Your task to perform on an android device: Clear the cart on bestbuy. Add usb-c to the cart on bestbuy Image 0: 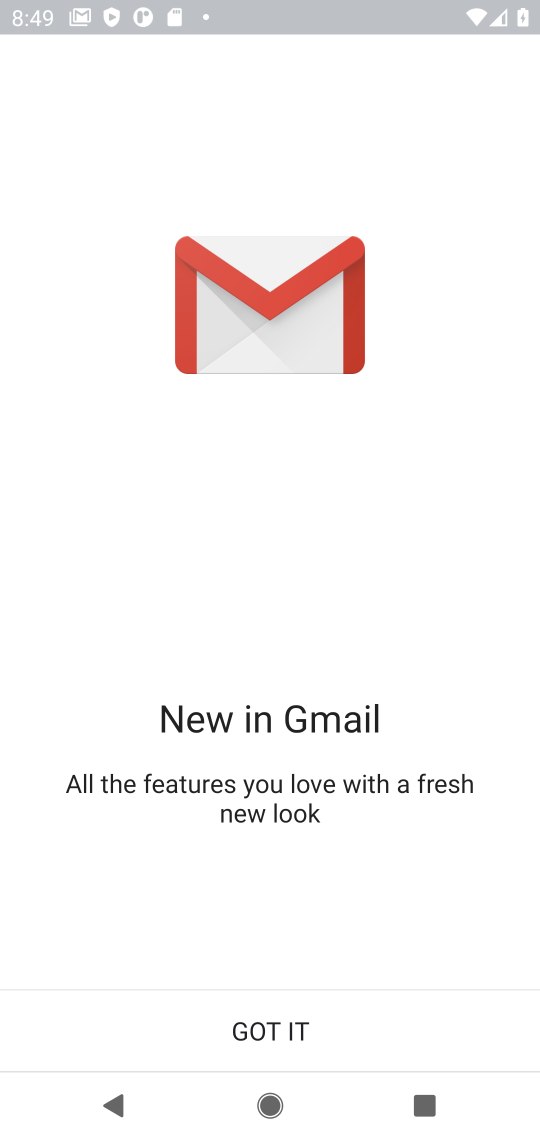
Step 0: press home button
Your task to perform on an android device: Clear the cart on bestbuy. Add usb-c to the cart on bestbuy Image 1: 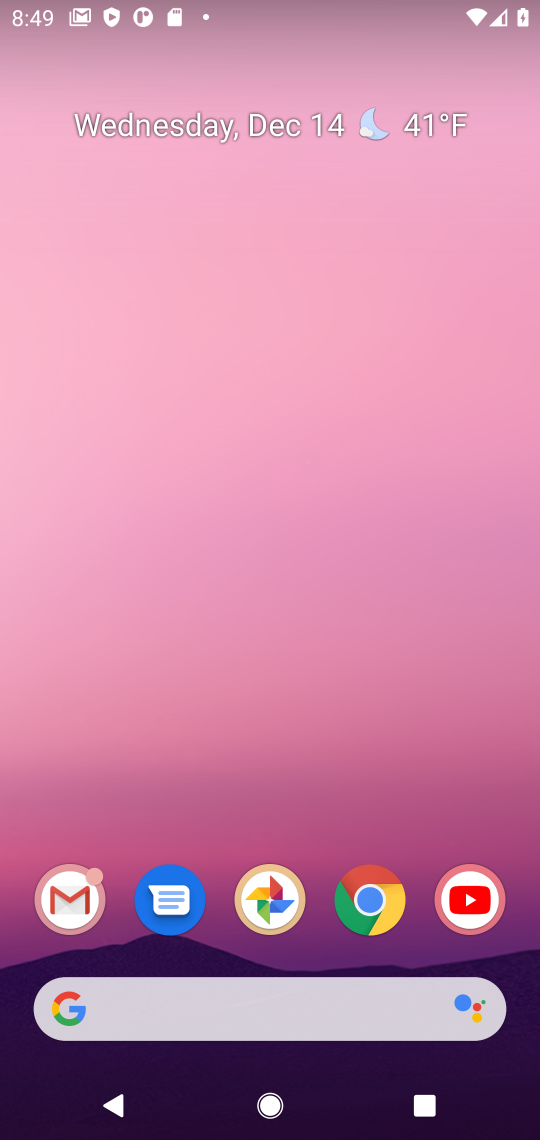
Step 1: click (369, 904)
Your task to perform on an android device: Clear the cart on bestbuy. Add usb-c to the cart on bestbuy Image 2: 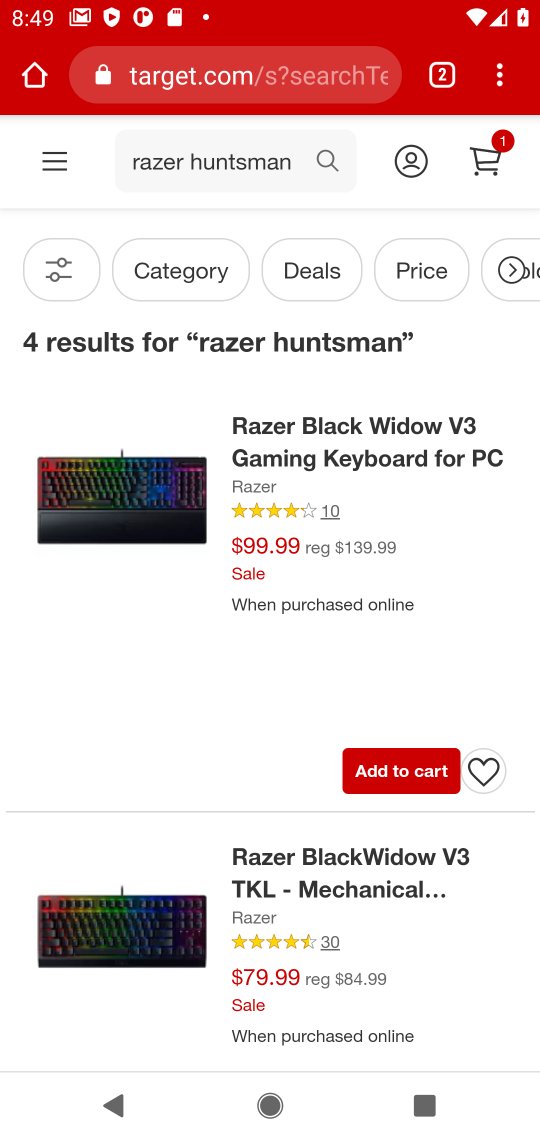
Step 2: click (205, 84)
Your task to perform on an android device: Clear the cart on bestbuy. Add usb-c to the cart on bestbuy Image 3: 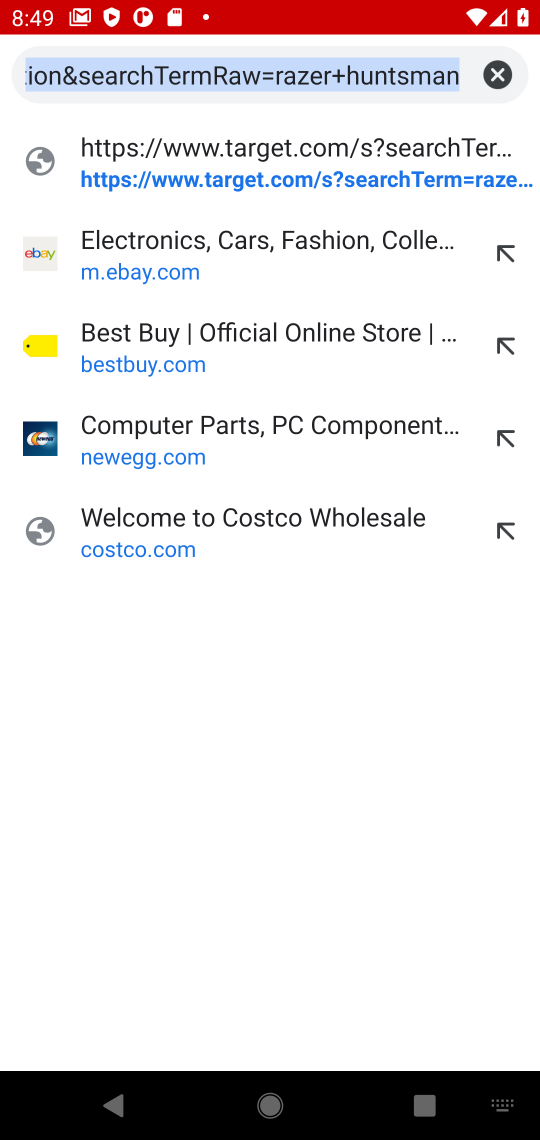
Step 3: click (109, 346)
Your task to perform on an android device: Clear the cart on bestbuy. Add usb-c to the cart on bestbuy Image 4: 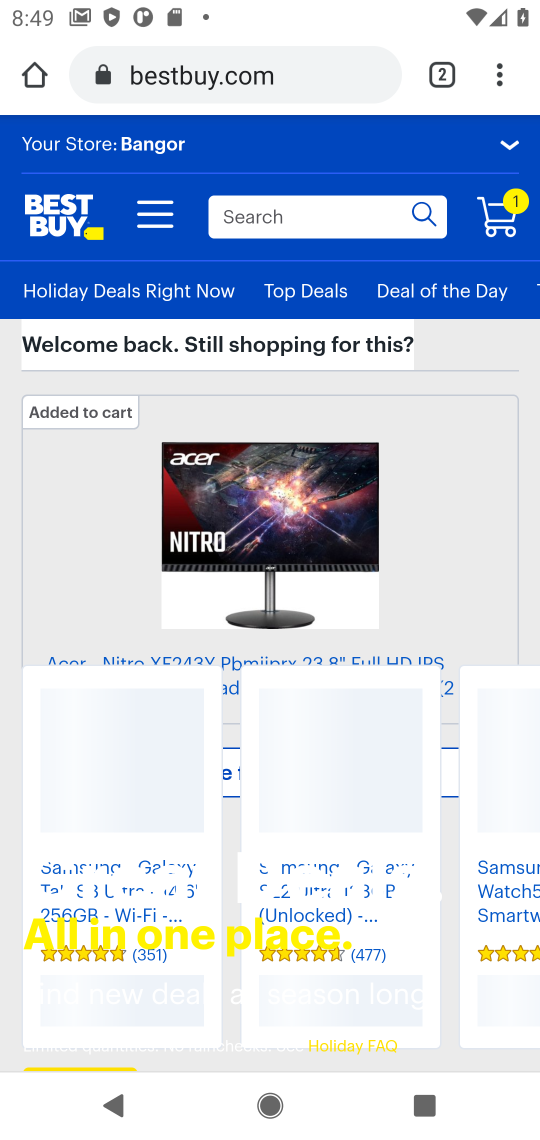
Step 4: click (502, 222)
Your task to perform on an android device: Clear the cart on bestbuy. Add usb-c to the cart on bestbuy Image 5: 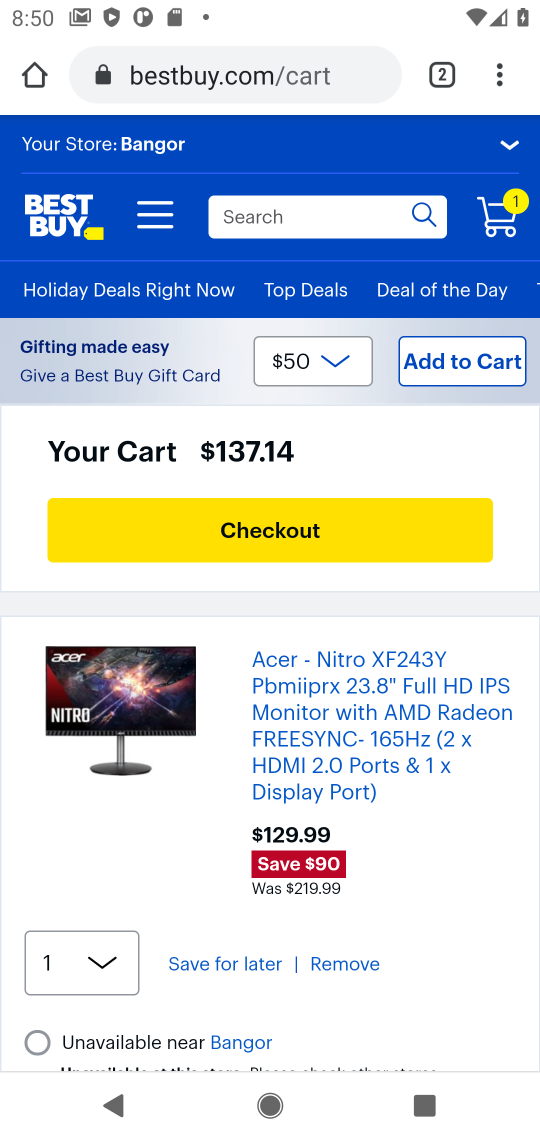
Step 5: drag from (326, 775) to (286, 465)
Your task to perform on an android device: Clear the cart on bestbuy. Add usb-c to the cart on bestbuy Image 6: 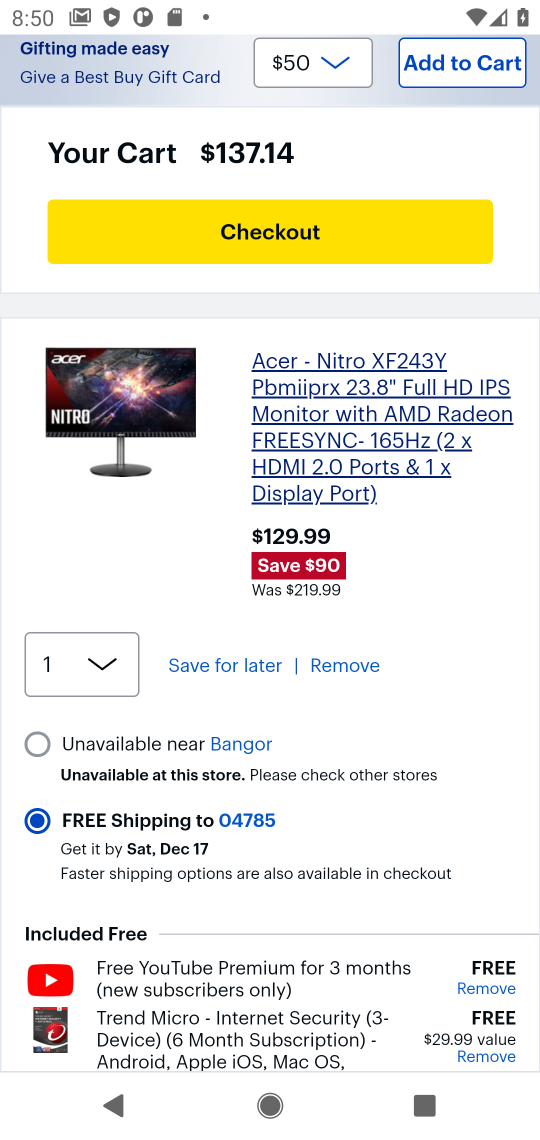
Step 6: click (323, 673)
Your task to perform on an android device: Clear the cart on bestbuy. Add usb-c to the cart on bestbuy Image 7: 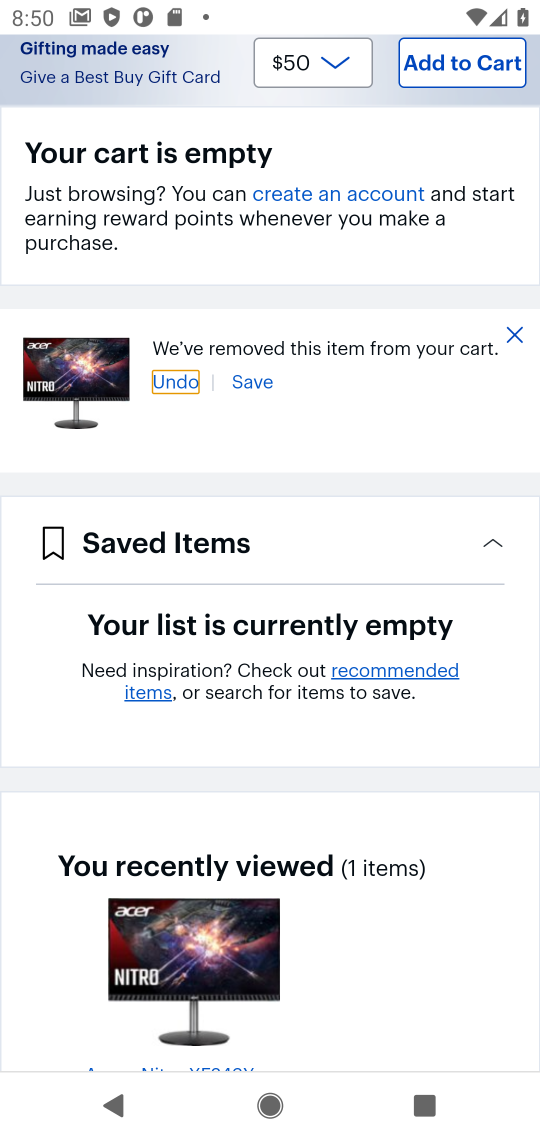
Step 7: drag from (289, 327) to (250, 782)
Your task to perform on an android device: Clear the cart on bestbuy. Add usb-c to the cart on bestbuy Image 8: 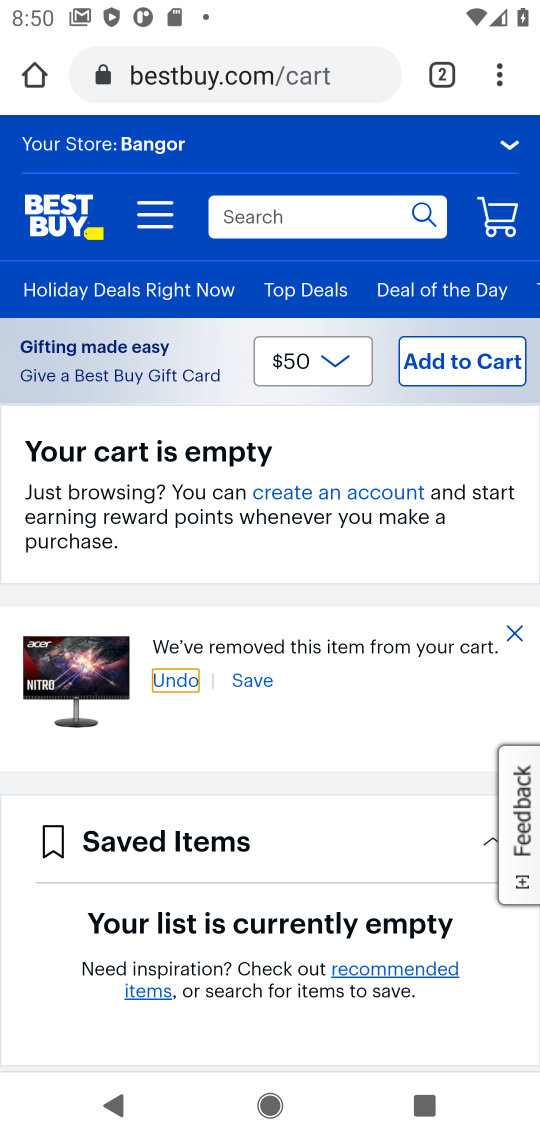
Step 8: click (233, 219)
Your task to perform on an android device: Clear the cart on bestbuy. Add usb-c to the cart on bestbuy Image 9: 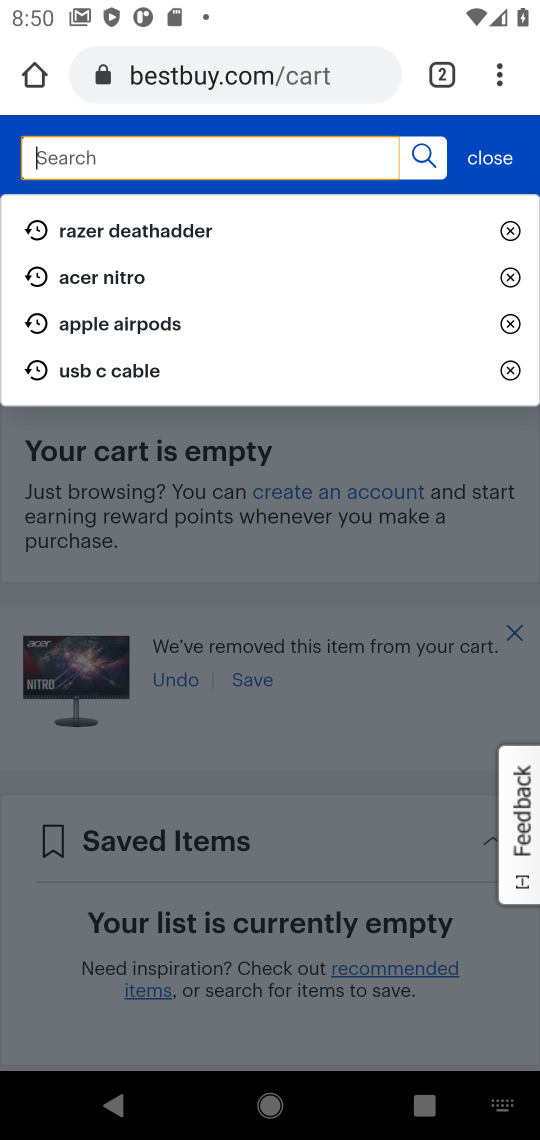
Step 9: type "usb-c"
Your task to perform on an android device: Clear the cart on bestbuy. Add usb-c to the cart on bestbuy Image 10: 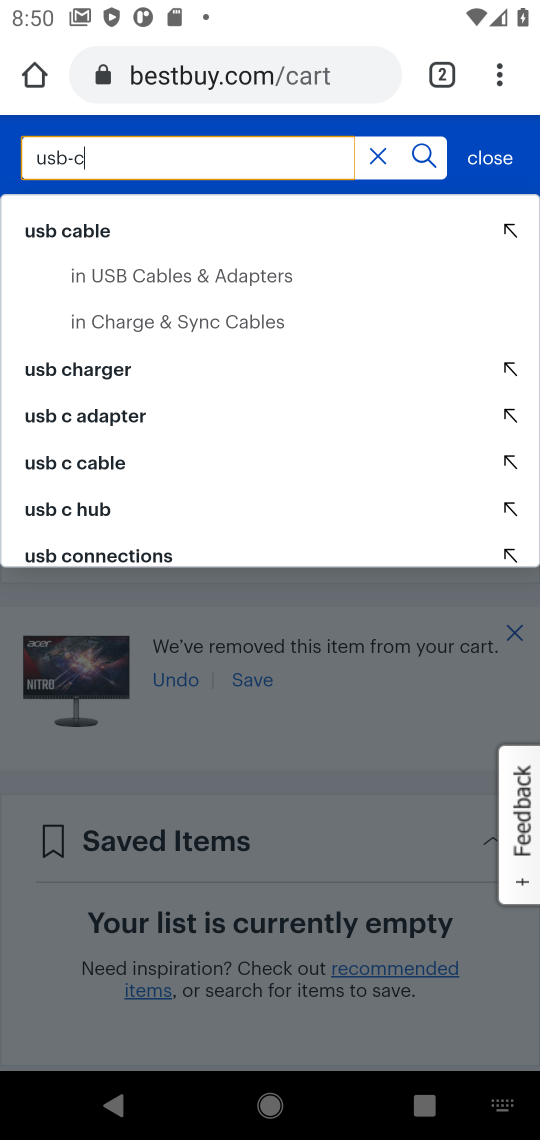
Step 10: click (63, 468)
Your task to perform on an android device: Clear the cart on bestbuy. Add usb-c to the cart on bestbuy Image 11: 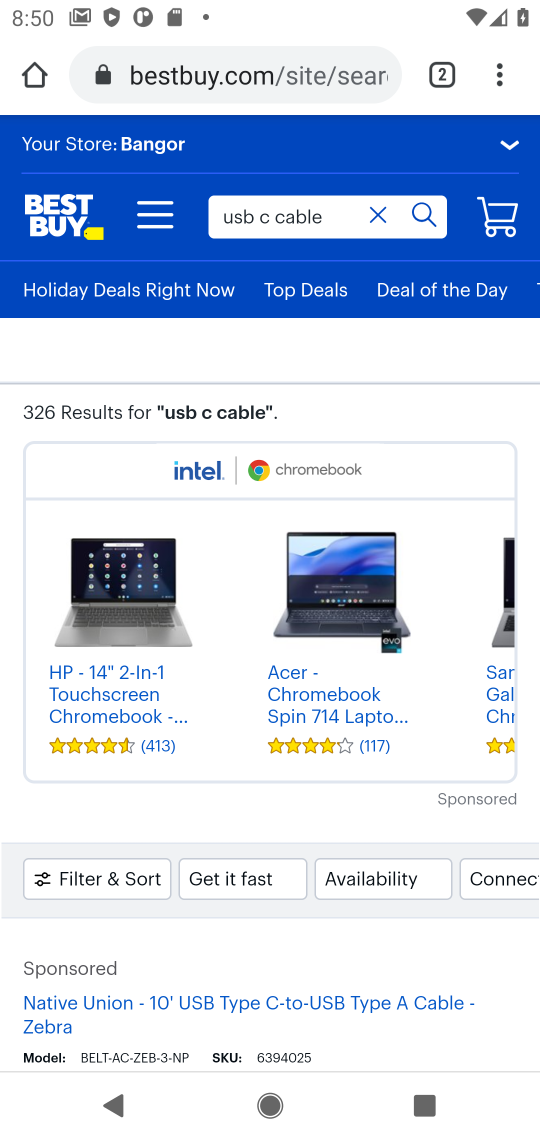
Step 11: drag from (172, 781) to (136, 402)
Your task to perform on an android device: Clear the cart on bestbuy. Add usb-c to the cart on bestbuy Image 12: 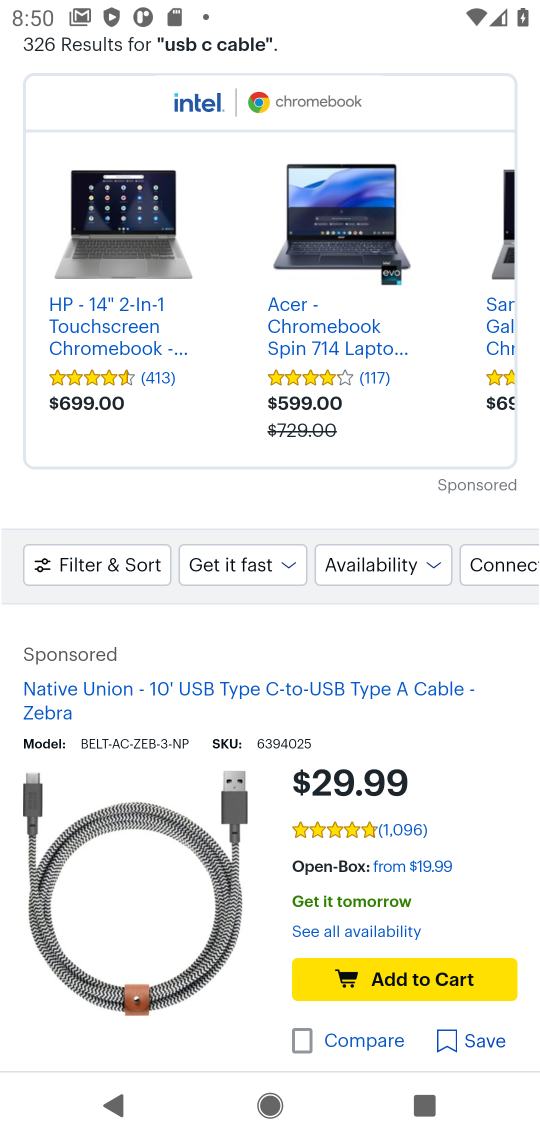
Step 12: click (367, 981)
Your task to perform on an android device: Clear the cart on bestbuy. Add usb-c to the cart on bestbuy Image 13: 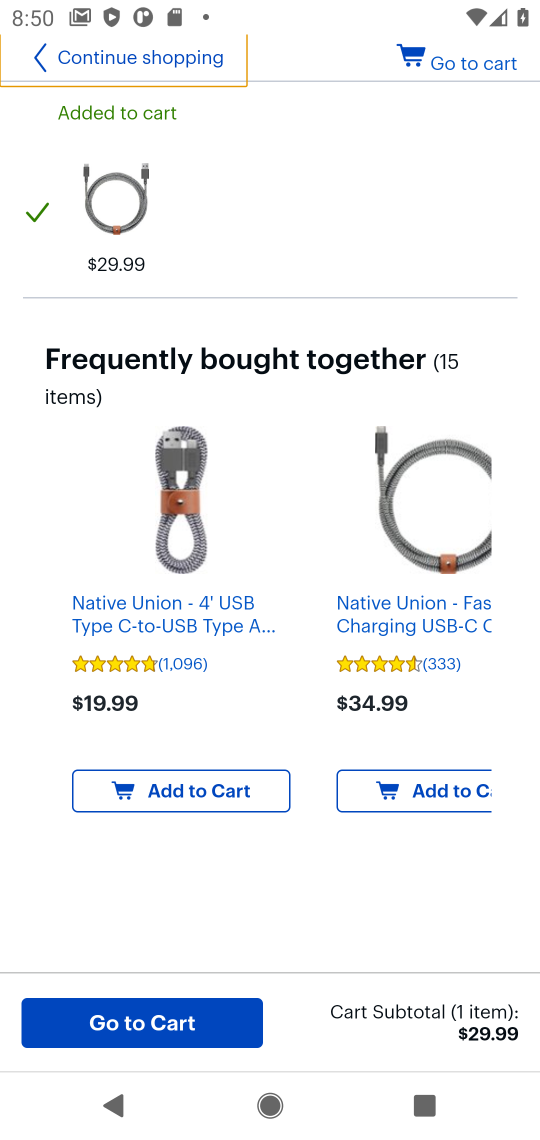
Step 13: task complete